Your task to perform on an android device: delete the emails in spam in the gmail app Image 0: 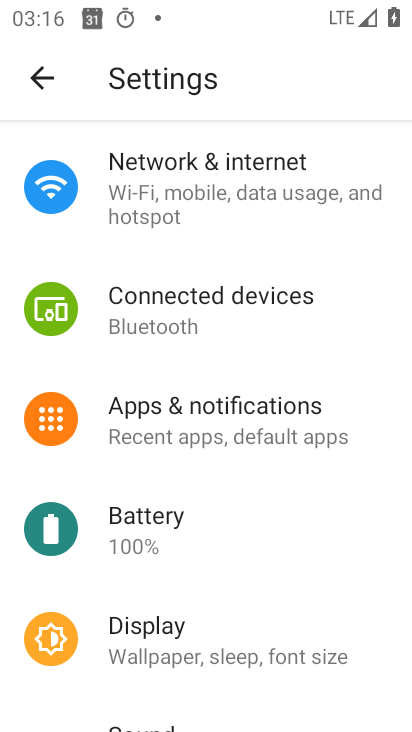
Step 0: press home button
Your task to perform on an android device: delete the emails in spam in the gmail app Image 1: 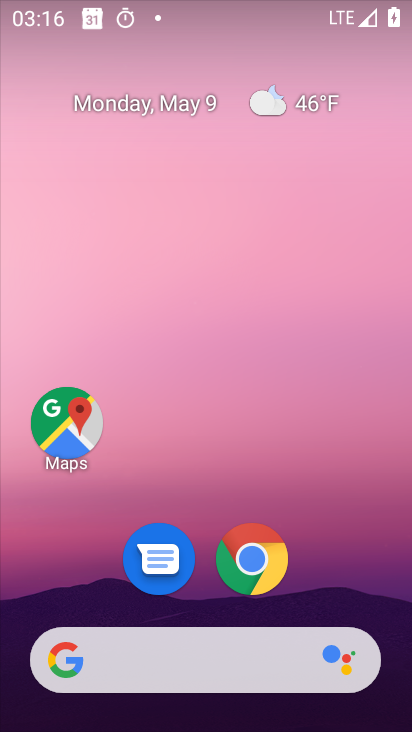
Step 1: drag from (356, 513) to (327, 210)
Your task to perform on an android device: delete the emails in spam in the gmail app Image 2: 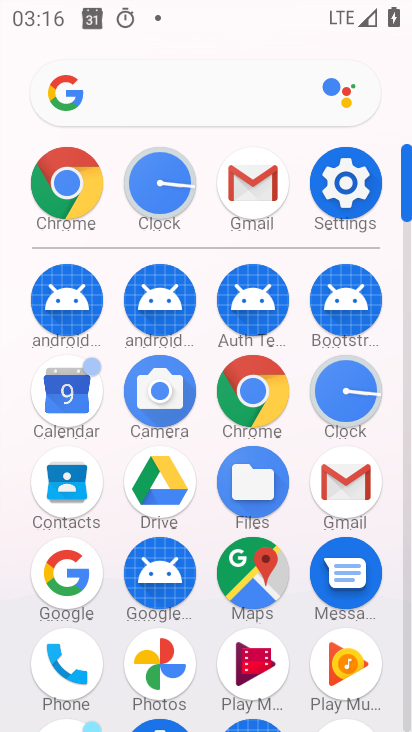
Step 2: click (252, 192)
Your task to perform on an android device: delete the emails in spam in the gmail app Image 3: 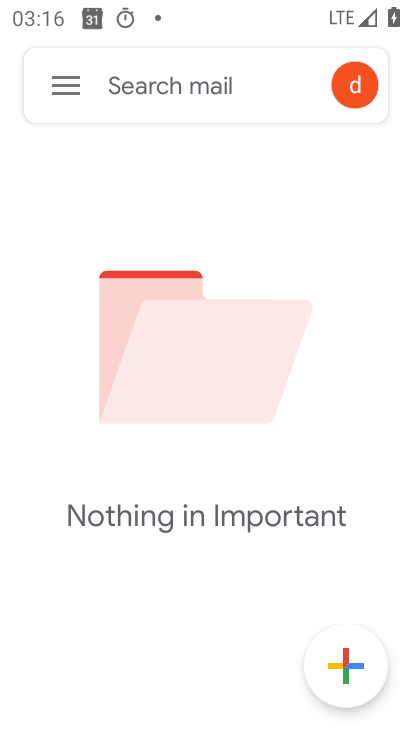
Step 3: click (61, 78)
Your task to perform on an android device: delete the emails in spam in the gmail app Image 4: 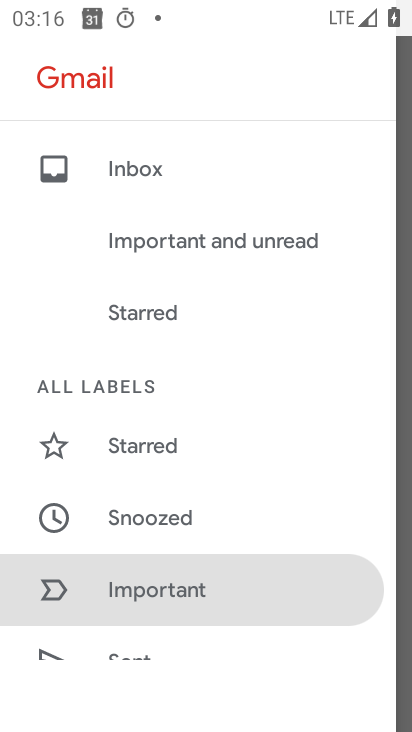
Step 4: drag from (170, 355) to (166, 170)
Your task to perform on an android device: delete the emails in spam in the gmail app Image 5: 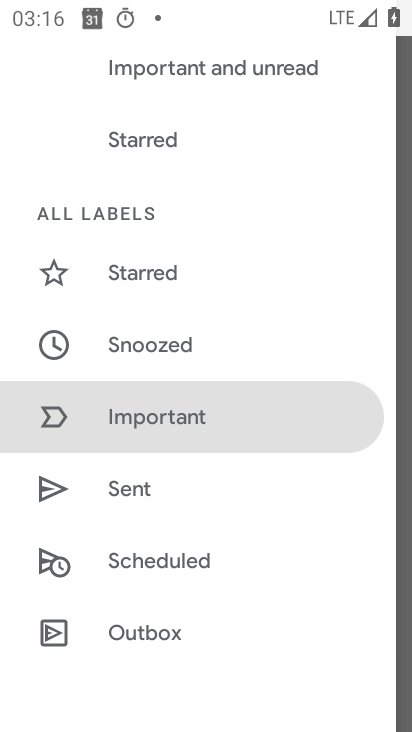
Step 5: drag from (154, 513) to (180, 312)
Your task to perform on an android device: delete the emails in spam in the gmail app Image 6: 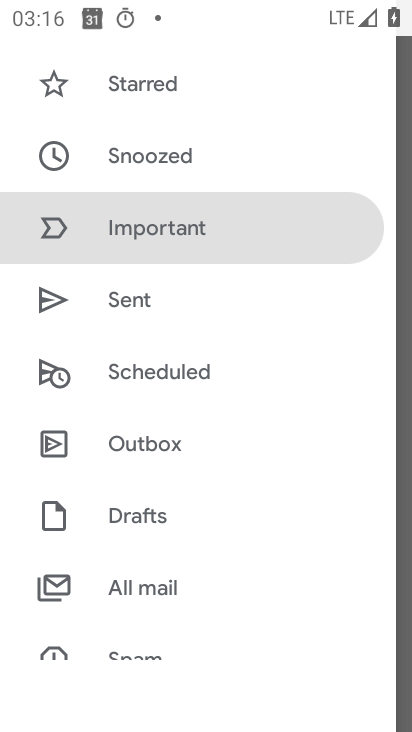
Step 6: drag from (118, 464) to (178, 254)
Your task to perform on an android device: delete the emails in spam in the gmail app Image 7: 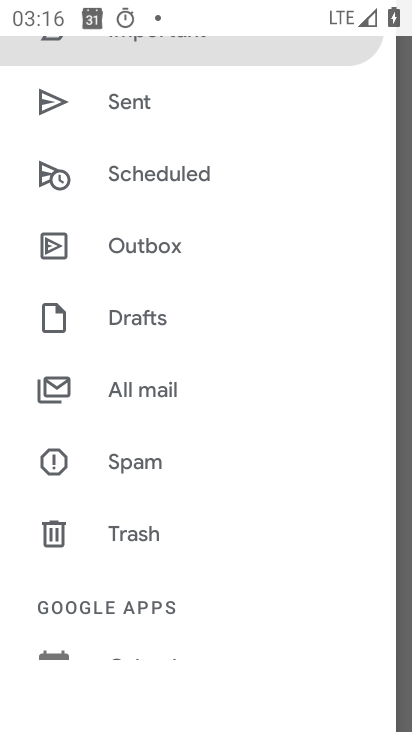
Step 7: click (130, 463)
Your task to perform on an android device: delete the emails in spam in the gmail app Image 8: 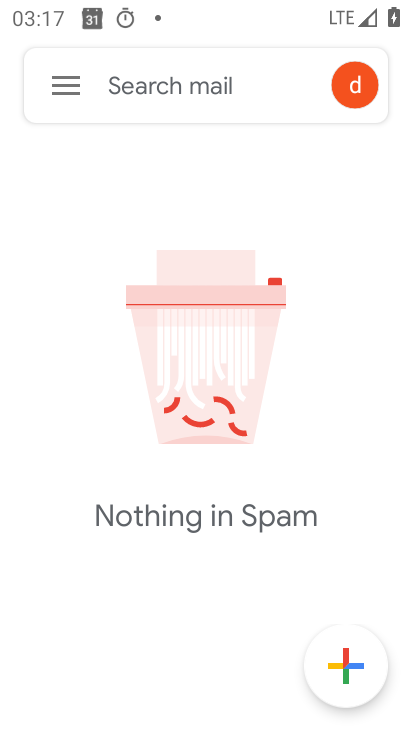
Step 8: task complete